Your task to perform on an android device: Toggle the flashlight Image 0: 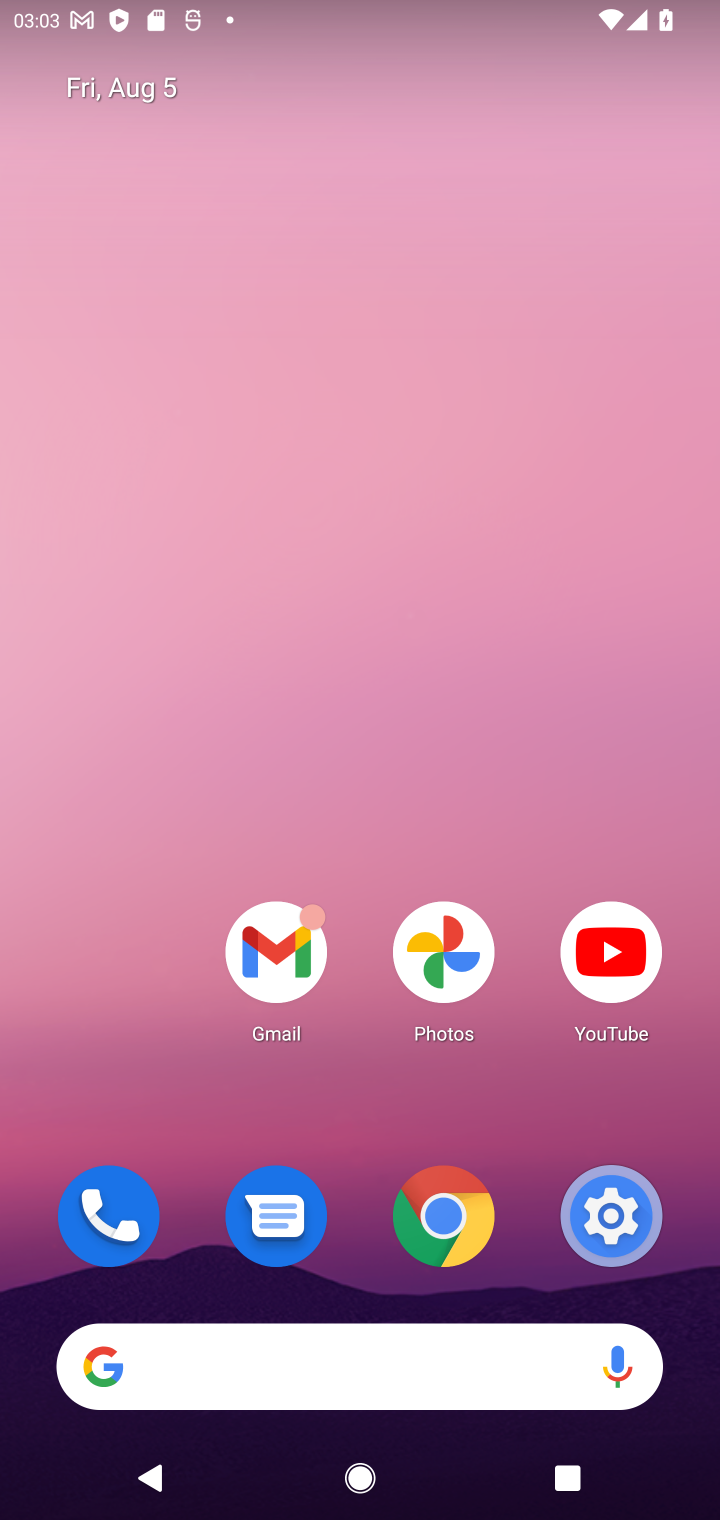
Step 0: drag from (464, 356) to (477, 1027)
Your task to perform on an android device: Toggle the flashlight Image 1: 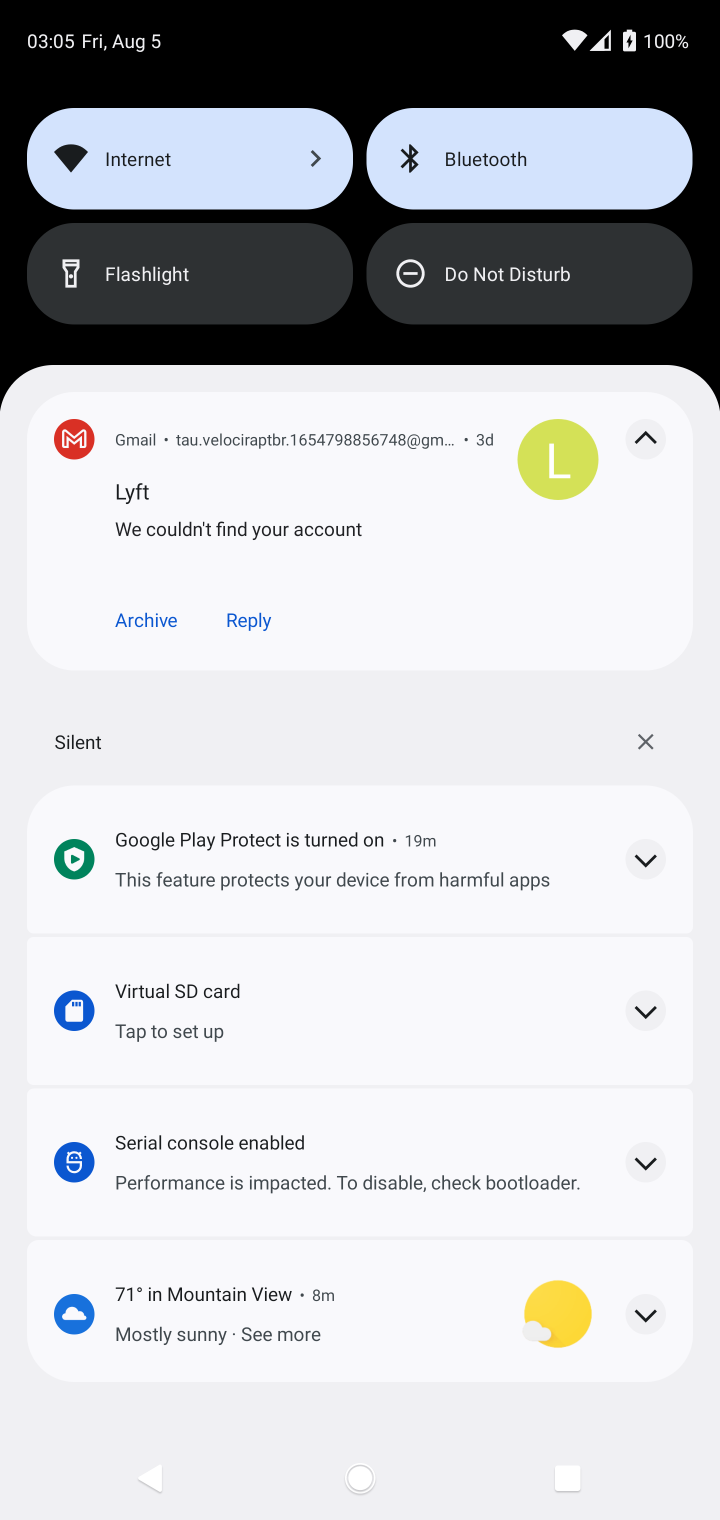
Step 1: task complete